Your task to perform on an android device: Set an alarm for 6pm Image 0: 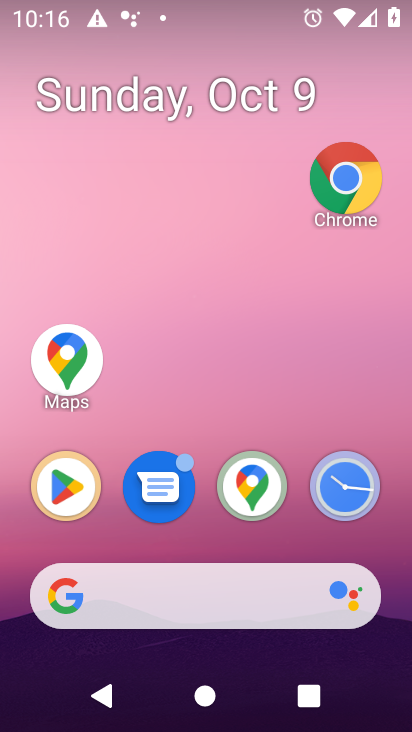
Step 0: drag from (212, 598) to (248, 240)
Your task to perform on an android device: Set an alarm for 6pm Image 1: 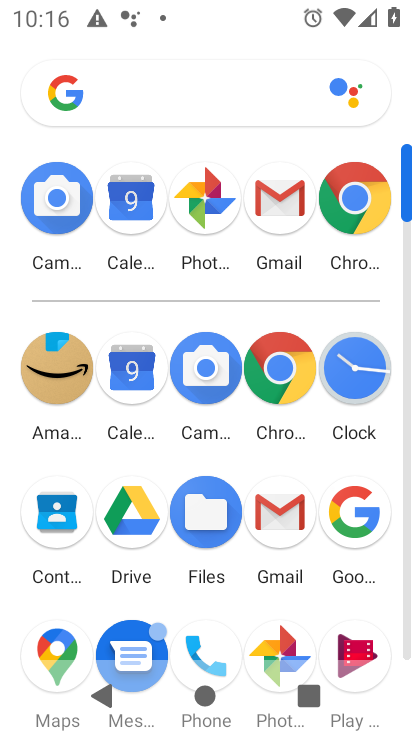
Step 1: click (374, 388)
Your task to perform on an android device: Set an alarm for 6pm Image 2: 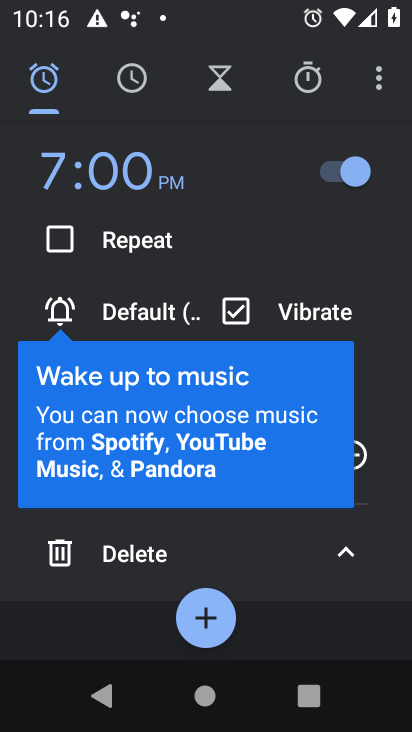
Step 2: click (186, 651)
Your task to perform on an android device: Set an alarm for 6pm Image 3: 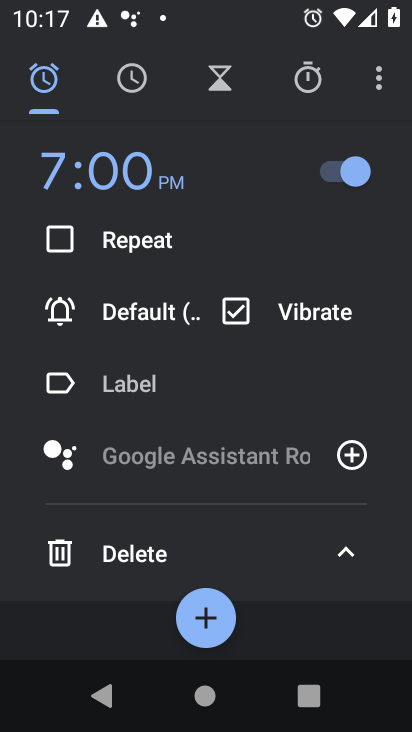
Step 3: click (194, 614)
Your task to perform on an android device: Set an alarm for 6pm Image 4: 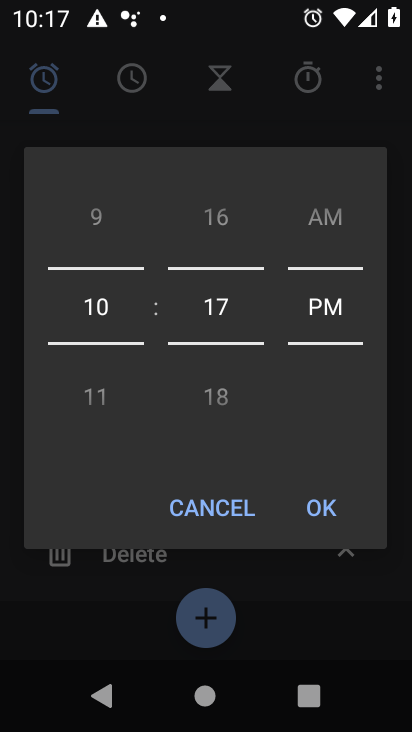
Step 4: drag from (110, 294) to (111, 392)
Your task to perform on an android device: Set an alarm for 6pm Image 5: 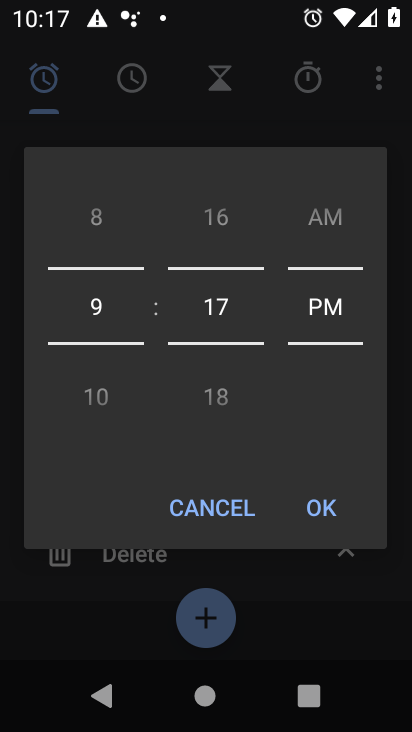
Step 5: drag from (106, 233) to (111, 319)
Your task to perform on an android device: Set an alarm for 6pm Image 6: 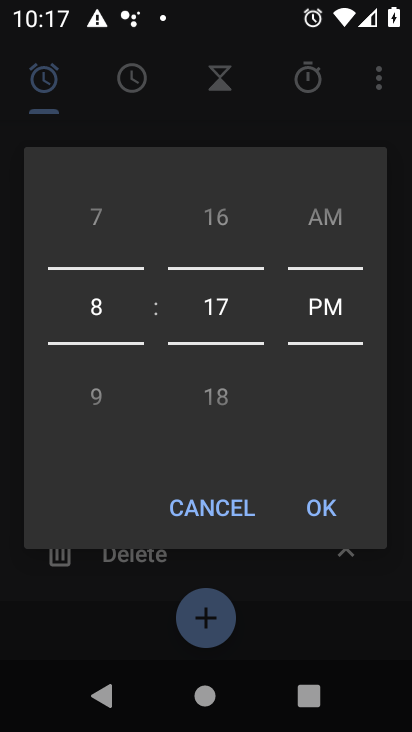
Step 6: drag from (101, 212) to (111, 354)
Your task to perform on an android device: Set an alarm for 6pm Image 7: 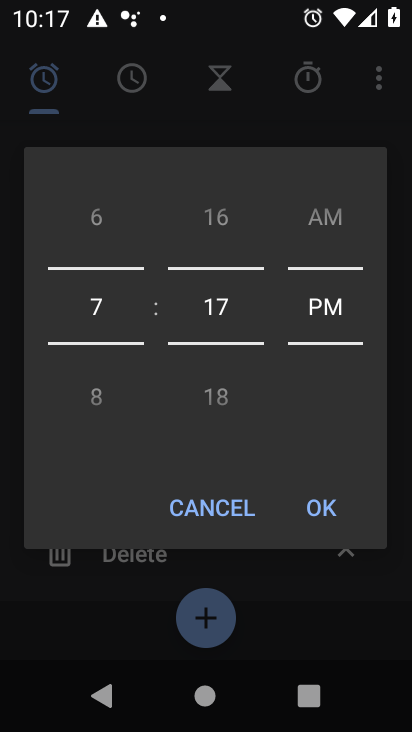
Step 7: drag from (101, 270) to (107, 394)
Your task to perform on an android device: Set an alarm for 6pm Image 8: 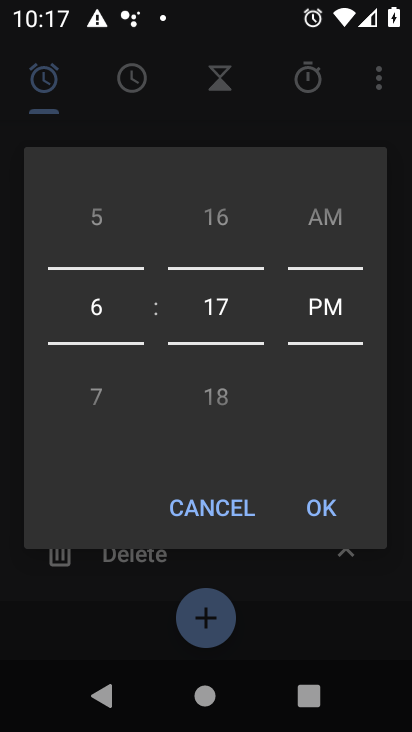
Step 8: drag from (222, 292) to (206, 407)
Your task to perform on an android device: Set an alarm for 6pm Image 9: 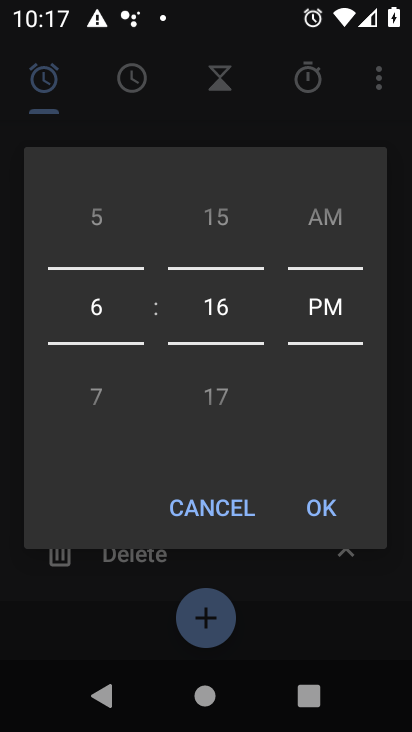
Step 9: drag from (232, 238) to (232, 394)
Your task to perform on an android device: Set an alarm for 6pm Image 10: 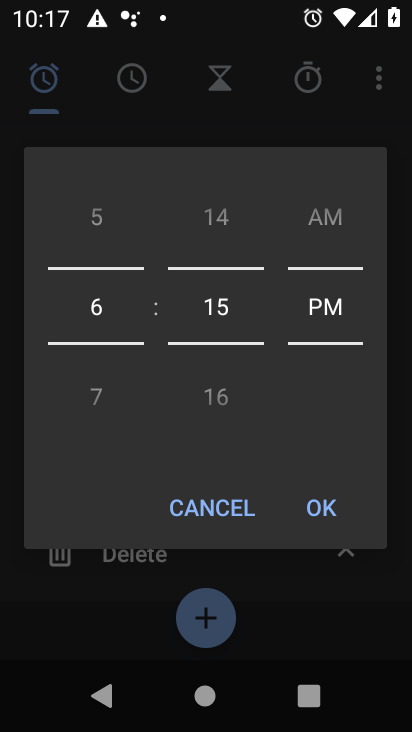
Step 10: drag from (232, 305) to (217, 502)
Your task to perform on an android device: Set an alarm for 6pm Image 11: 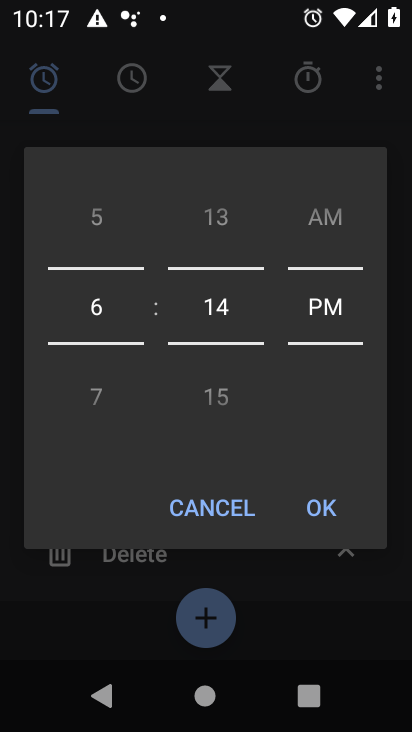
Step 11: drag from (227, 252) to (228, 473)
Your task to perform on an android device: Set an alarm for 6pm Image 12: 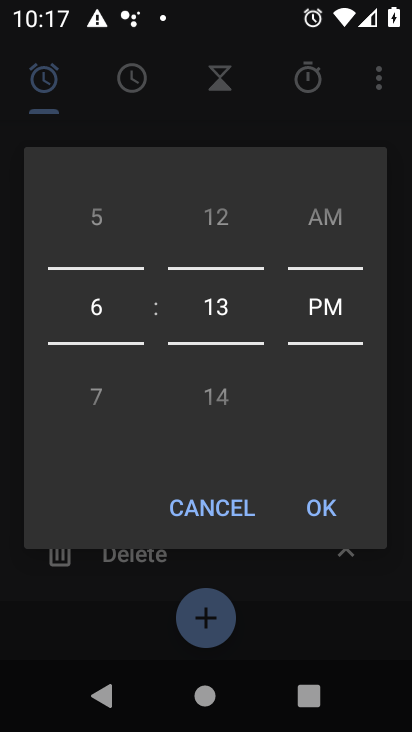
Step 12: drag from (227, 219) to (232, 351)
Your task to perform on an android device: Set an alarm for 6pm Image 13: 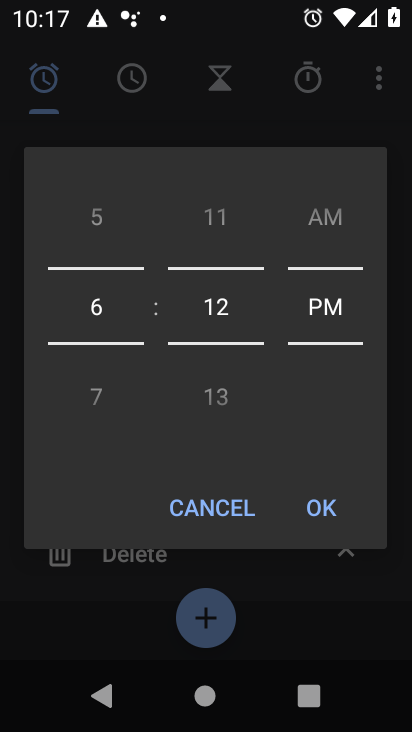
Step 13: drag from (230, 225) to (245, 379)
Your task to perform on an android device: Set an alarm for 6pm Image 14: 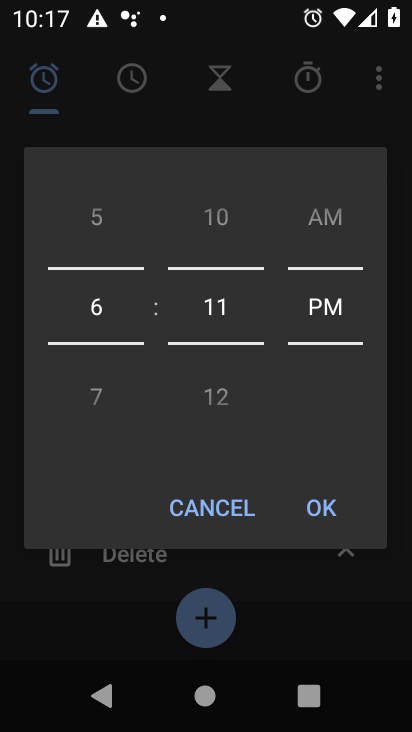
Step 14: drag from (236, 227) to (236, 468)
Your task to perform on an android device: Set an alarm for 6pm Image 15: 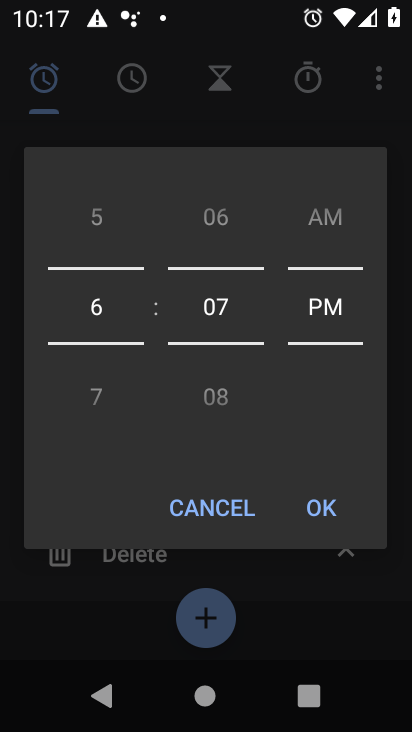
Step 15: drag from (224, 276) to (234, 494)
Your task to perform on an android device: Set an alarm for 6pm Image 16: 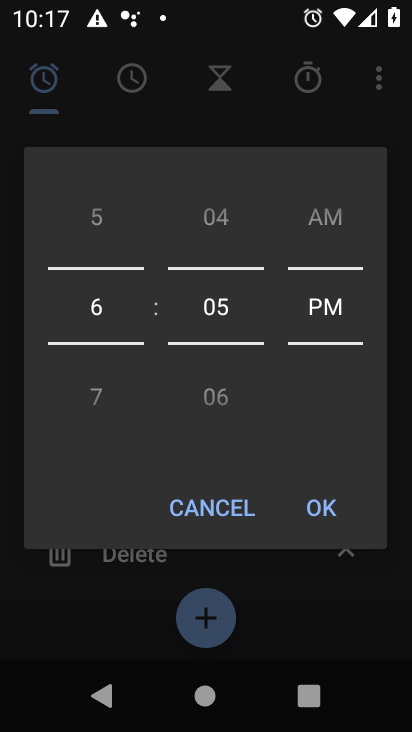
Step 16: drag from (234, 221) to (236, 365)
Your task to perform on an android device: Set an alarm for 6pm Image 17: 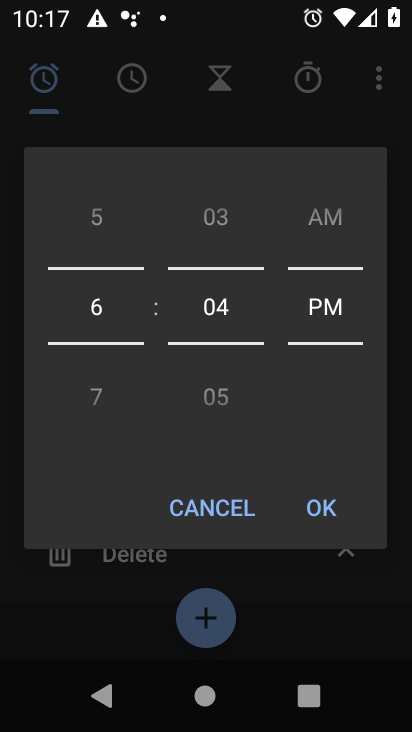
Step 17: drag from (220, 216) to (223, 324)
Your task to perform on an android device: Set an alarm for 6pm Image 18: 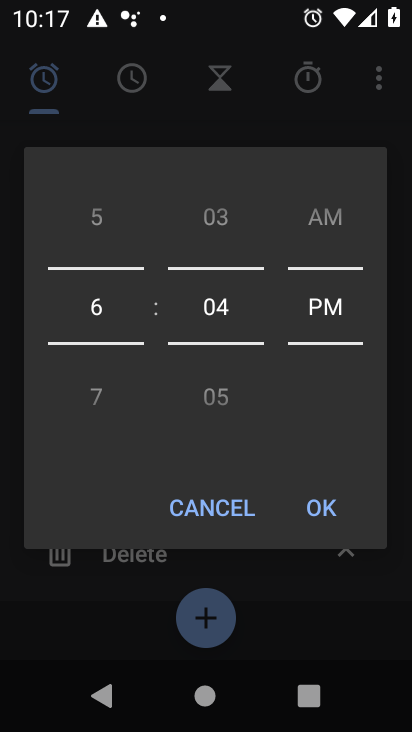
Step 18: drag from (229, 224) to (232, 424)
Your task to perform on an android device: Set an alarm for 6pm Image 19: 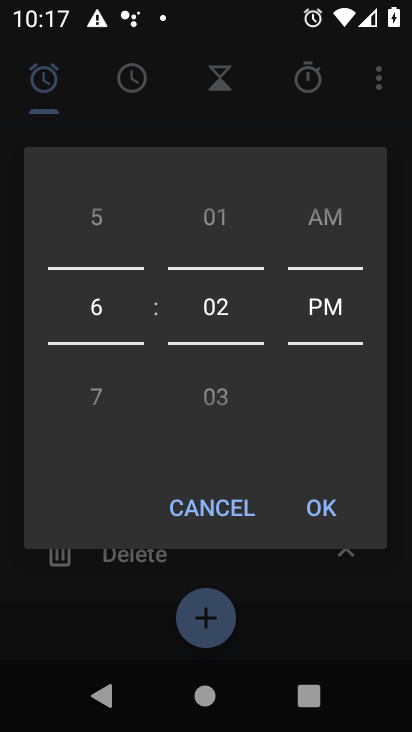
Step 19: drag from (223, 303) to (230, 468)
Your task to perform on an android device: Set an alarm for 6pm Image 20: 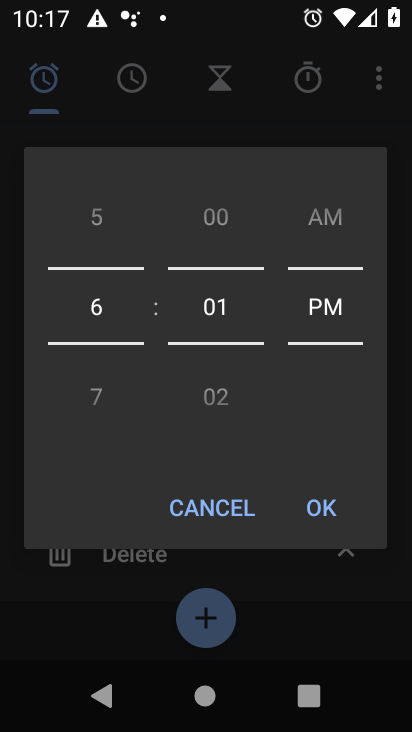
Step 20: drag from (227, 303) to (231, 380)
Your task to perform on an android device: Set an alarm for 6pm Image 21: 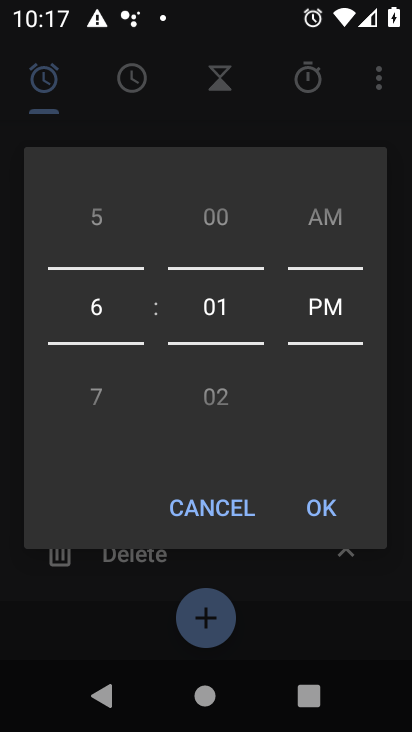
Step 21: drag from (229, 246) to (234, 387)
Your task to perform on an android device: Set an alarm for 6pm Image 22: 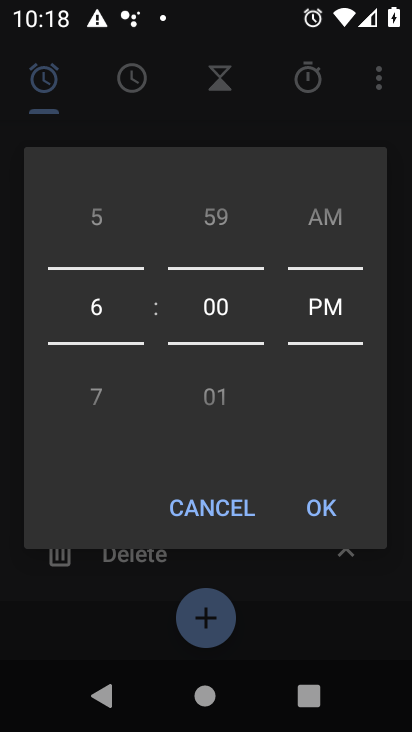
Step 22: click (318, 504)
Your task to perform on an android device: Set an alarm for 6pm Image 23: 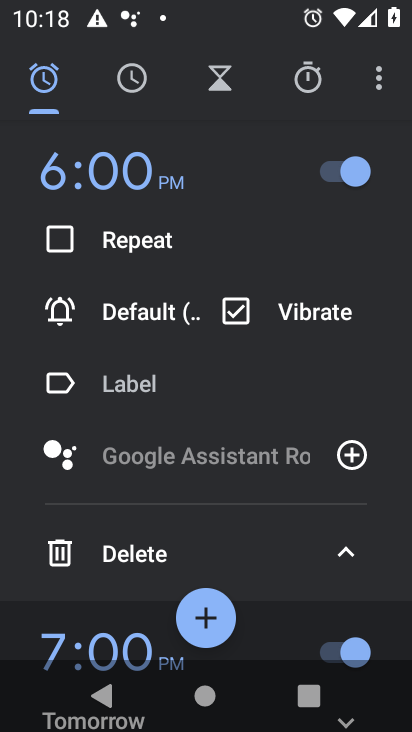
Step 23: task complete